Your task to perform on an android device: Open Amazon Image 0: 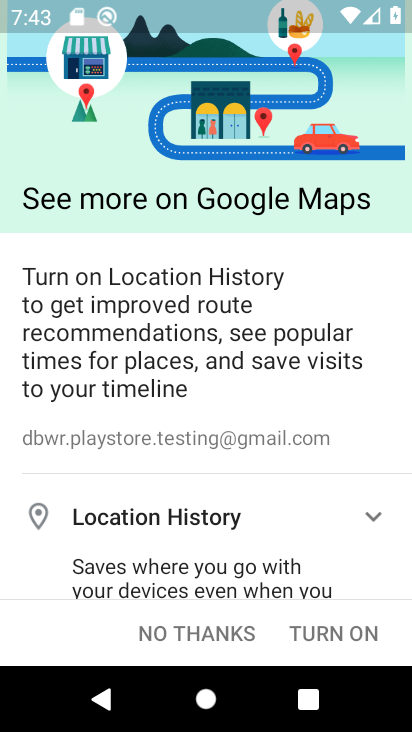
Step 0: press home button
Your task to perform on an android device: Open Amazon Image 1: 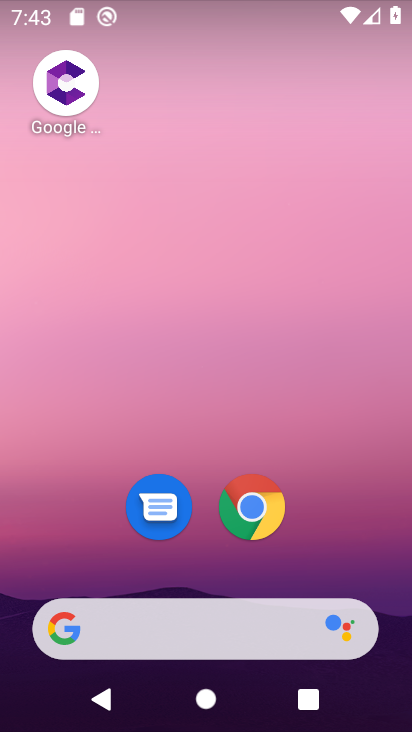
Step 1: click (246, 512)
Your task to perform on an android device: Open Amazon Image 2: 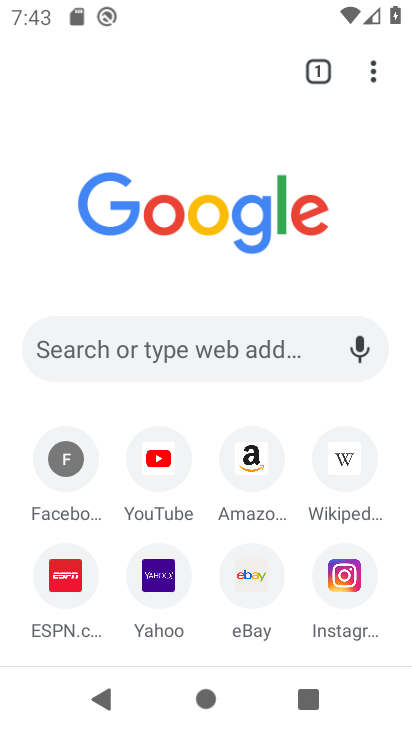
Step 2: click (251, 464)
Your task to perform on an android device: Open Amazon Image 3: 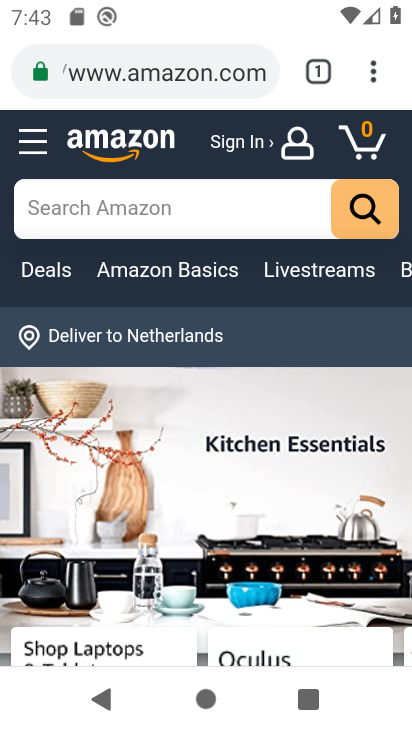
Step 3: task complete